Your task to perform on an android device: Go to Android settings Image 0: 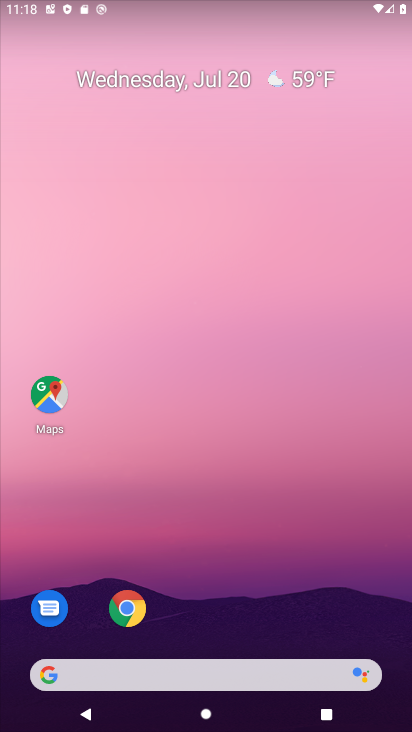
Step 0: drag from (280, 599) to (190, 105)
Your task to perform on an android device: Go to Android settings Image 1: 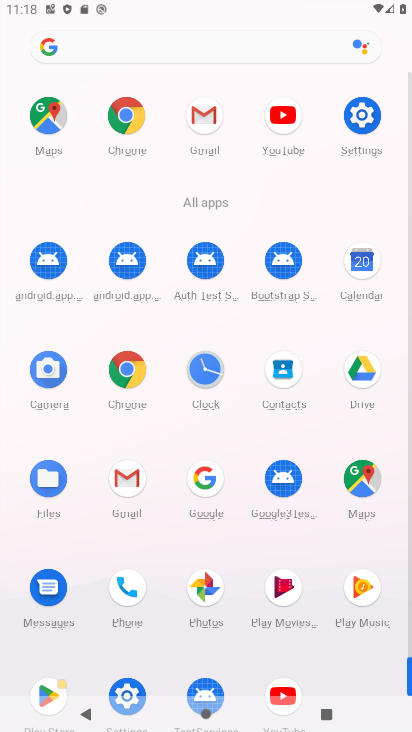
Step 1: click (356, 112)
Your task to perform on an android device: Go to Android settings Image 2: 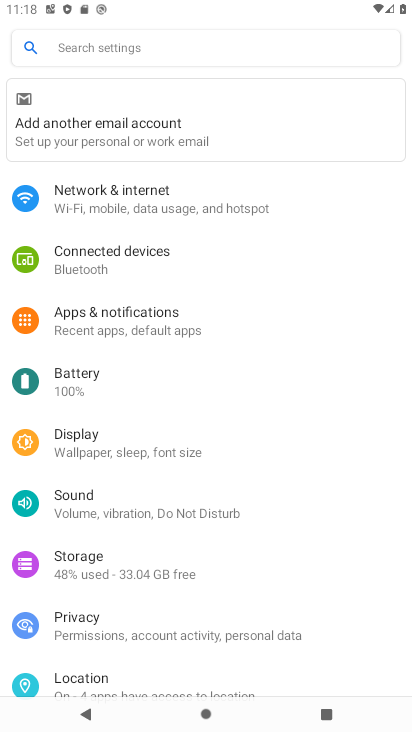
Step 2: task complete